Your task to perform on an android device: Open CNN.com Image 0: 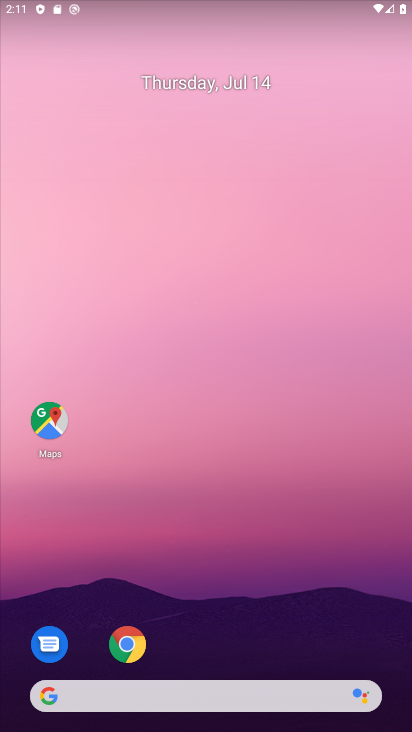
Step 0: click (140, 635)
Your task to perform on an android device: Open CNN.com Image 1: 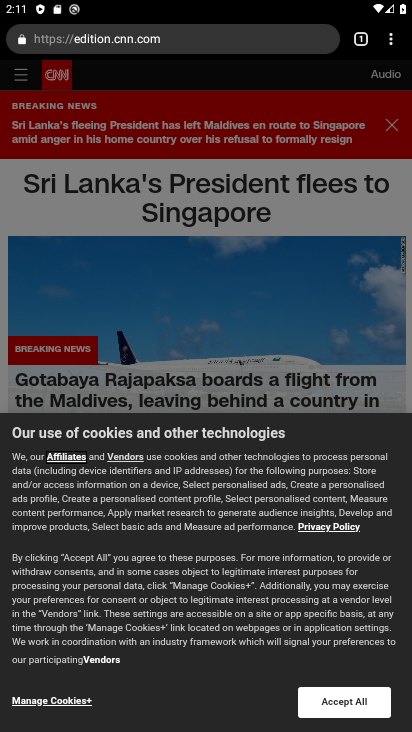
Step 1: task complete